Your task to perform on an android device: check android version Image 0: 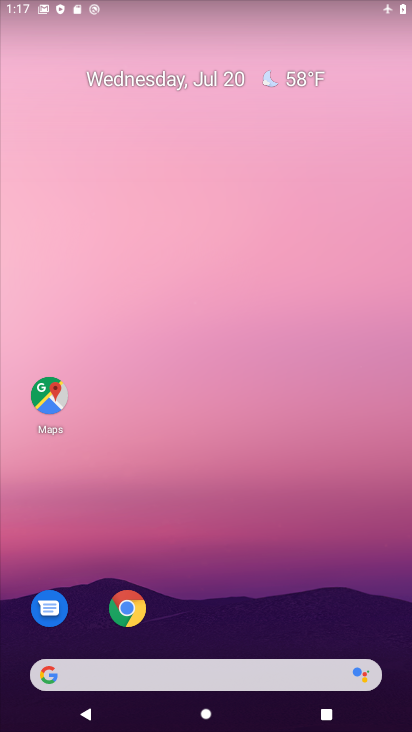
Step 0: drag from (224, 651) to (217, 240)
Your task to perform on an android device: check android version Image 1: 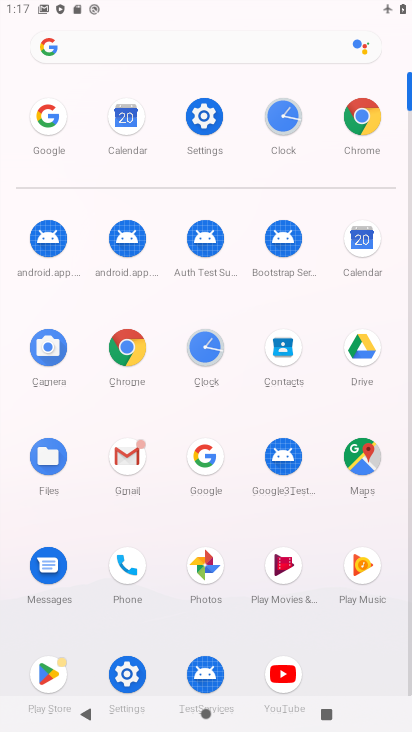
Step 1: click (199, 111)
Your task to perform on an android device: check android version Image 2: 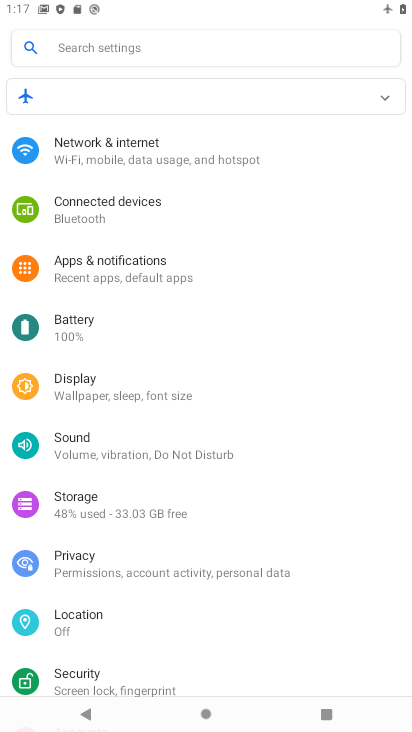
Step 2: drag from (173, 671) to (171, 327)
Your task to perform on an android device: check android version Image 3: 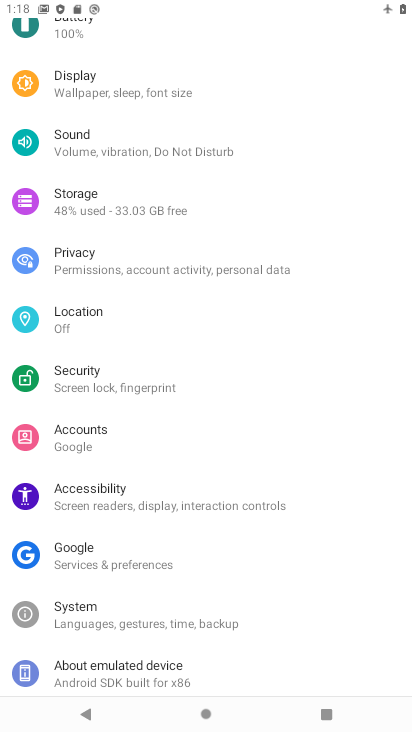
Step 3: drag from (140, 668) to (129, 398)
Your task to perform on an android device: check android version Image 4: 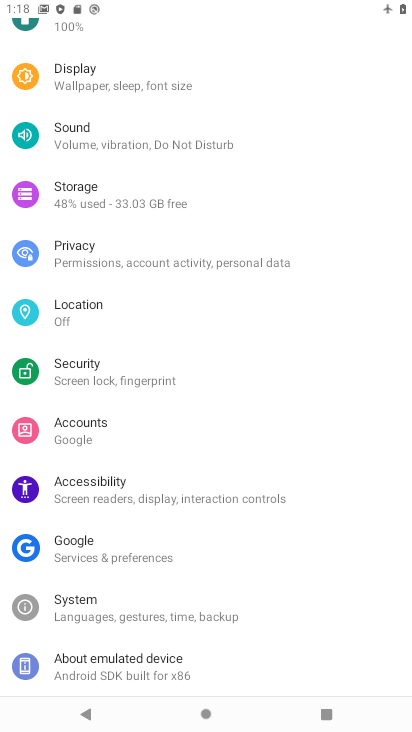
Step 4: click (120, 667)
Your task to perform on an android device: check android version Image 5: 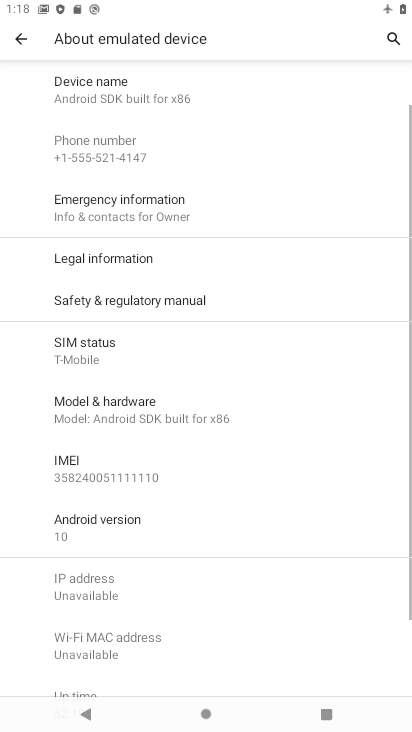
Step 5: click (93, 518)
Your task to perform on an android device: check android version Image 6: 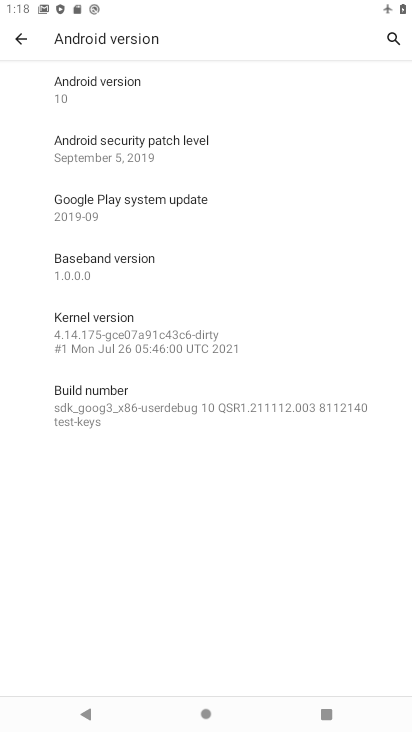
Step 6: task complete